Your task to perform on an android device: turn on improve location accuracy Image 0: 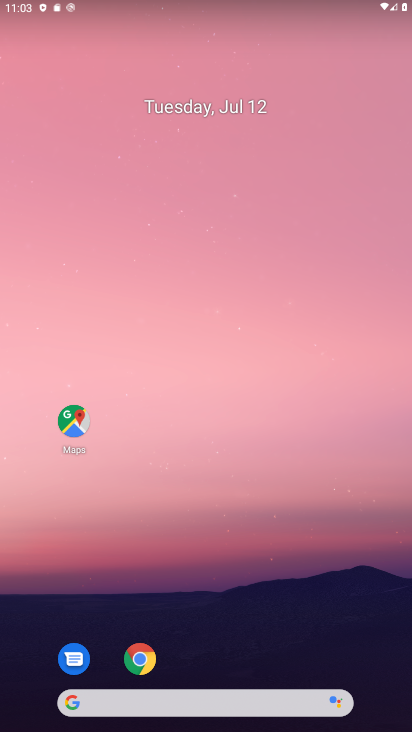
Step 0: drag from (29, 729) to (182, 42)
Your task to perform on an android device: turn on improve location accuracy Image 1: 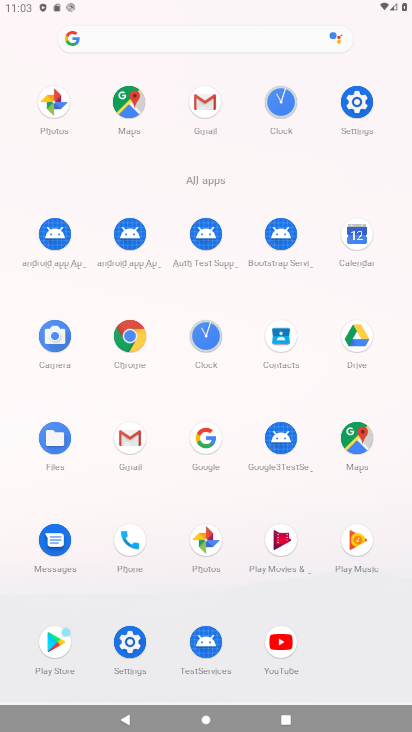
Step 1: click (135, 637)
Your task to perform on an android device: turn on improve location accuracy Image 2: 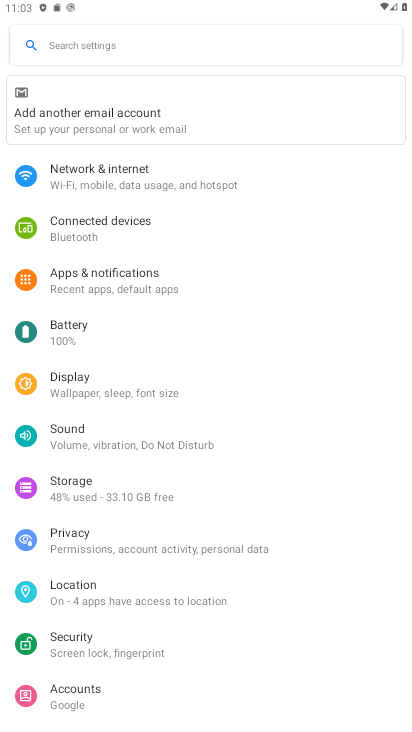
Step 2: click (102, 588)
Your task to perform on an android device: turn on improve location accuracy Image 3: 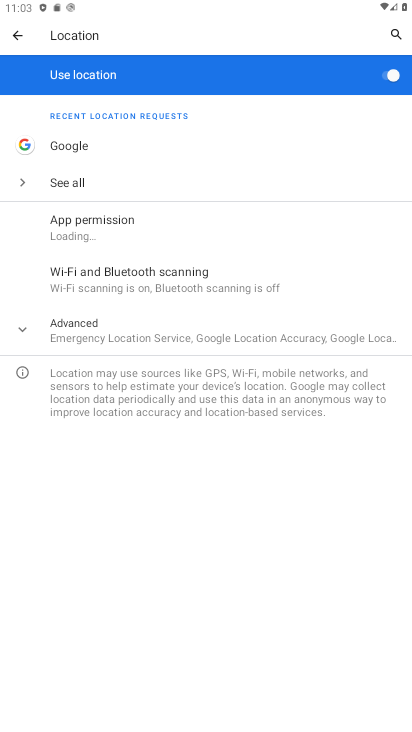
Step 3: click (106, 330)
Your task to perform on an android device: turn on improve location accuracy Image 4: 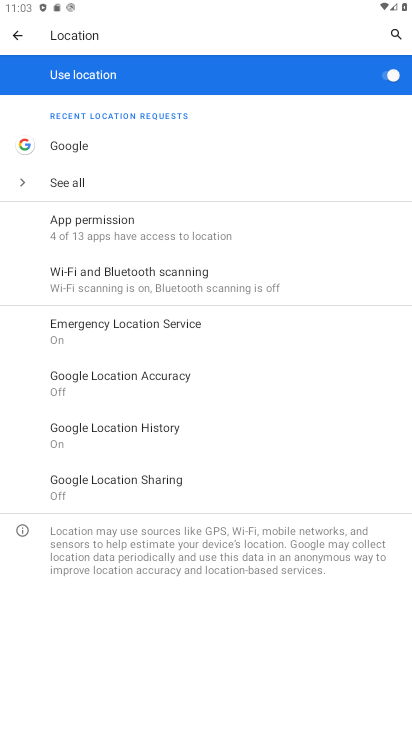
Step 4: click (105, 381)
Your task to perform on an android device: turn on improve location accuracy Image 5: 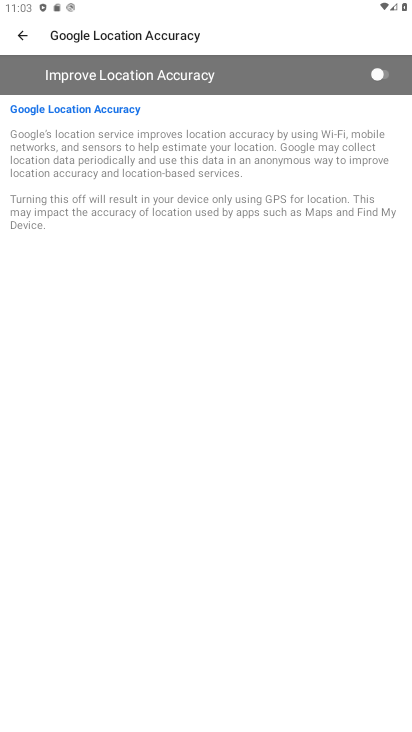
Step 5: click (380, 78)
Your task to perform on an android device: turn on improve location accuracy Image 6: 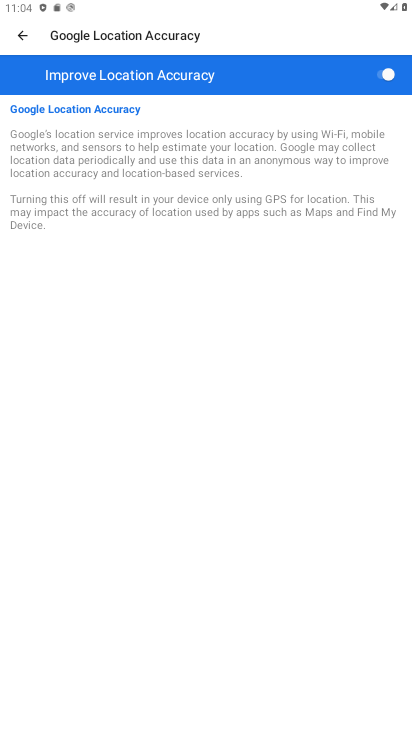
Step 6: task complete